Your task to perform on an android device: Go to display settings Image 0: 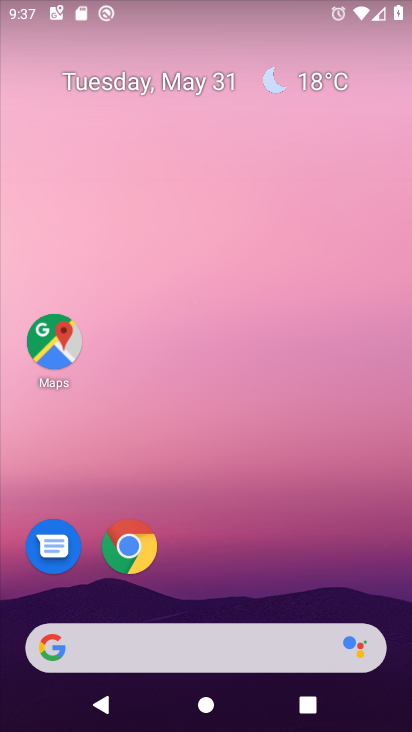
Step 0: drag from (176, 611) to (223, 172)
Your task to perform on an android device: Go to display settings Image 1: 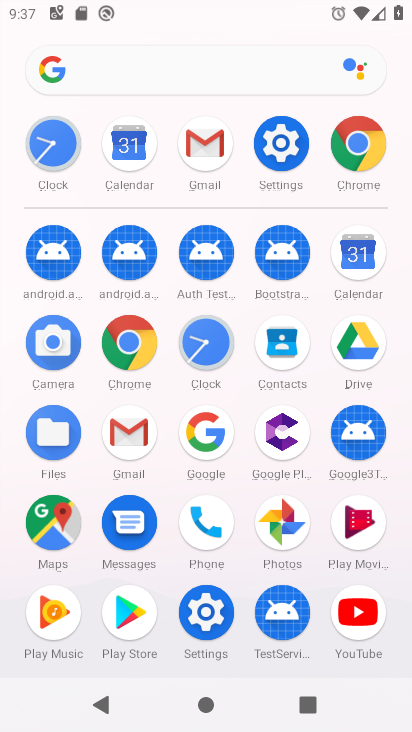
Step 1: click (281, 160)
Your task to perform on an android device: Go to display settings Image 2: 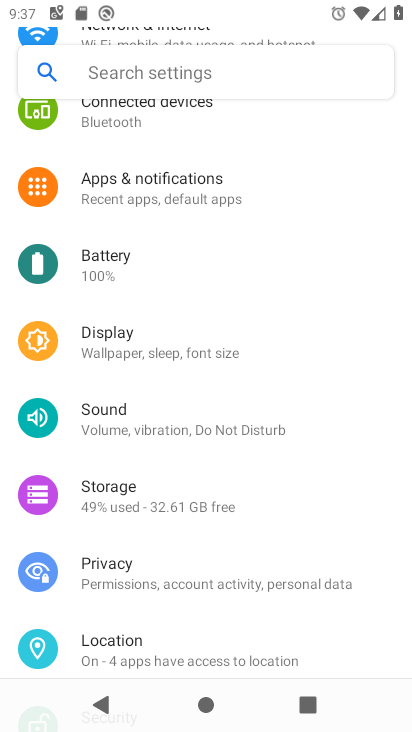
Step 2: click (153, 351)
Your task to perform on an android device: Go to display settings Image 3: 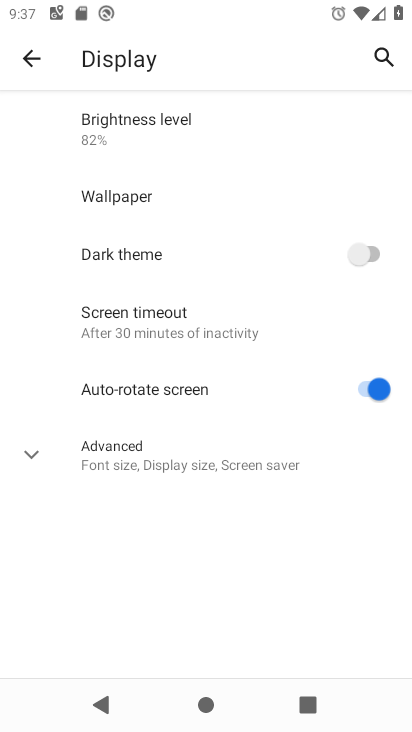
Step 3: task complete